Your task to perform on an android device: turn on wifi Image 0: 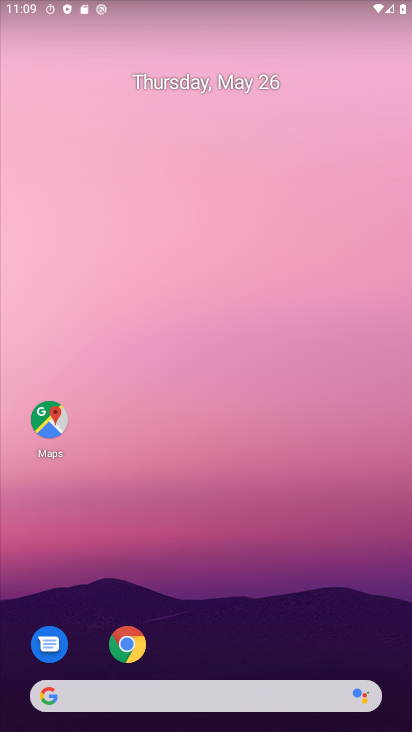
Step 0: drag from (170, 11) to (154, 610)
Your task to perform on an android device: turn on wifi Image 1: 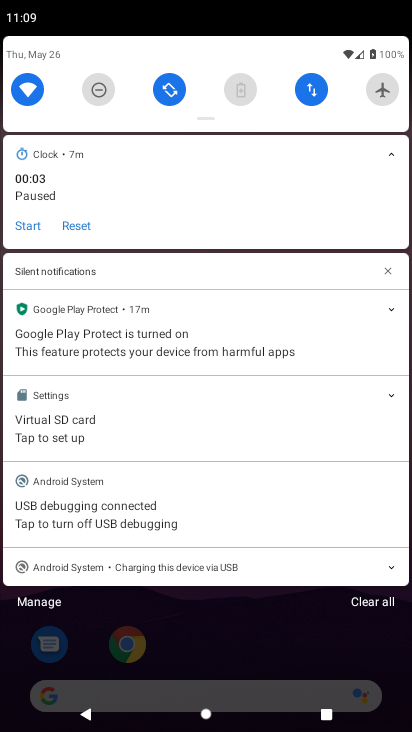
Step 1: task complete